Your task to perform on an android device: Show me recent news Image 0: 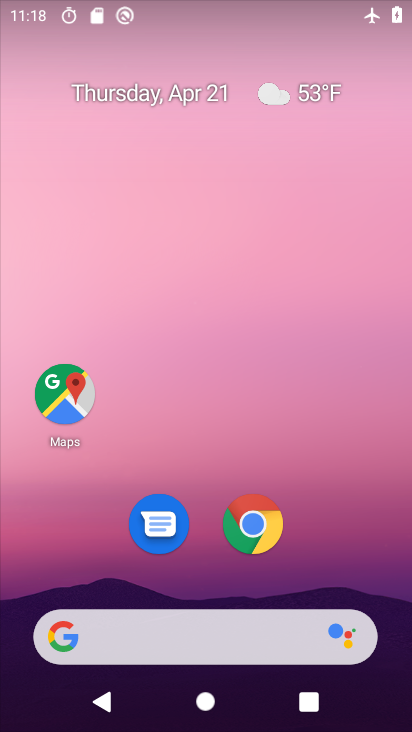
Step 0: click (190, 632)
Your task to perform on an android device: Show me recent news Image 1: 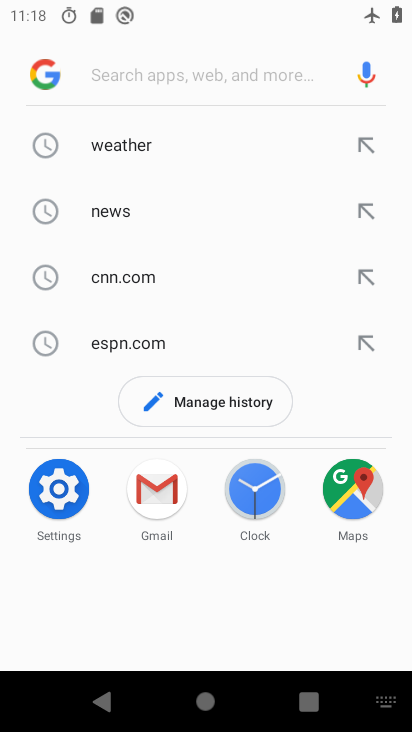
Step 1: click (50, 72)
Your task to perform on an android device: Show me recent news Image 2: 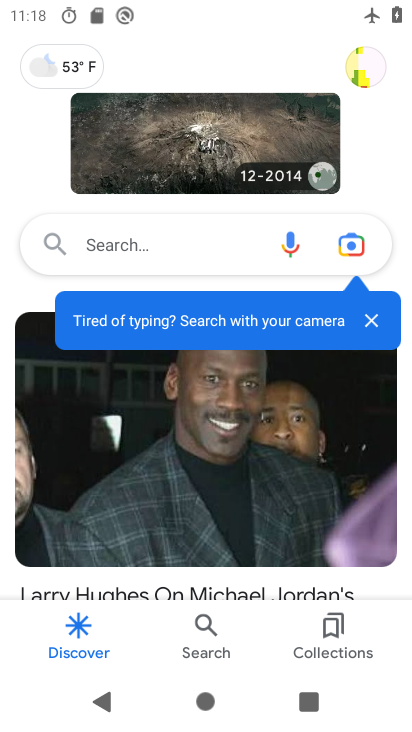
Step 2: task complete